Your task to perform on an android device: Empty the shopping cart on amazon. Add macbook pro 15 inch to the cart on amazon, then select checkout. Image 0: 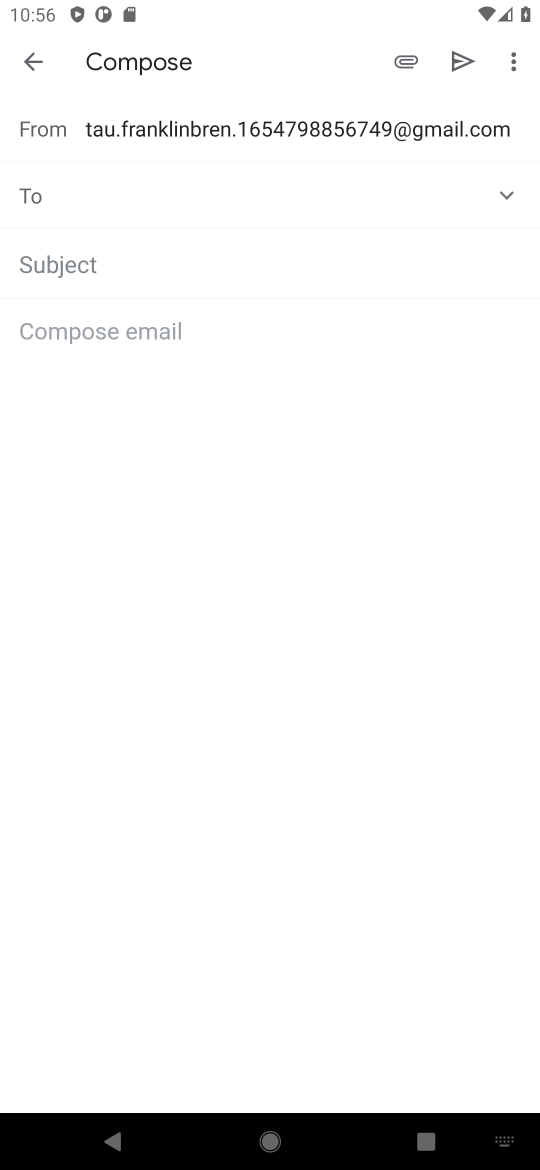
Step 0: press home button
Your task to perform on an android device: Empty the shopping cart on amazon. Add macbook pro 15 inch to the cart on amazon, then select checkout. Image 1: 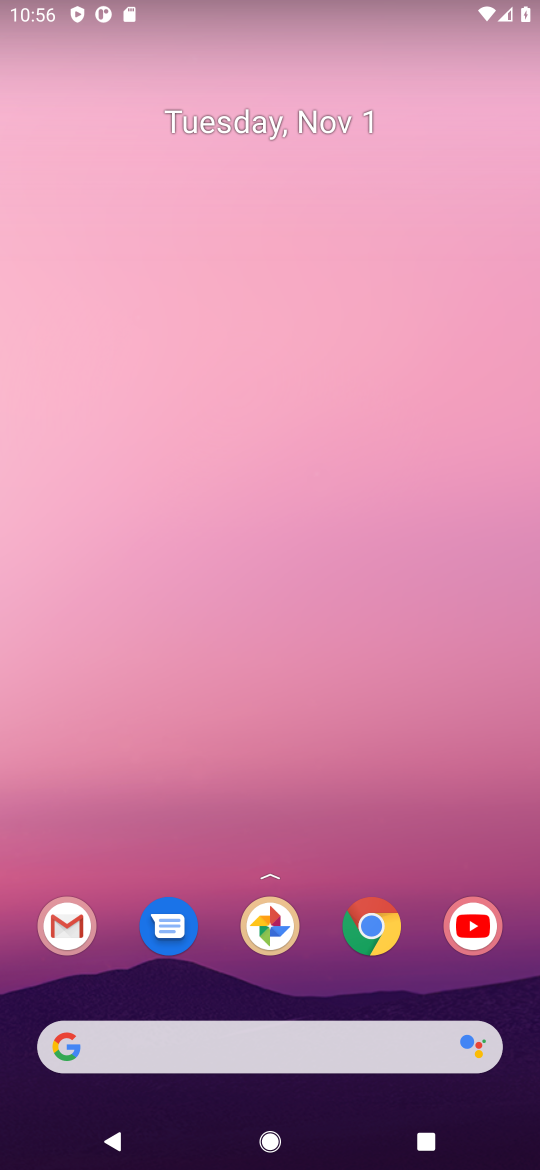
Step 1: click (390, 934)
Your task to perform on an android device: Empty the shopping cart on amazon. Add macbook pro 15 inch to the cart on amazon, then select checkout. Image 2: 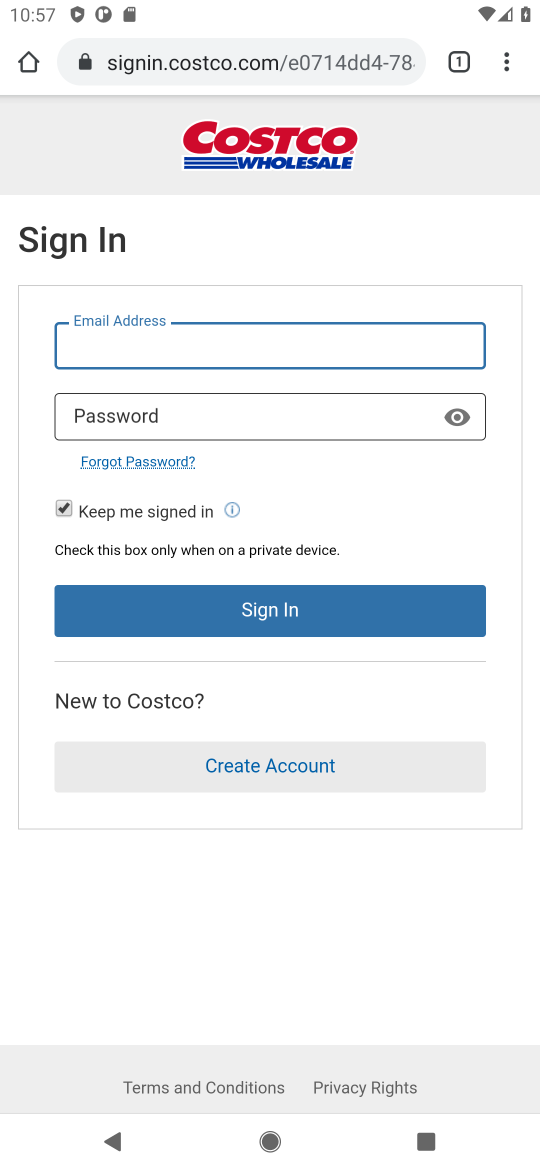
Step 2: press back button
Your task to perform on an android device: Empty the shopping cart on amazon. Add macbook pro 15 inch to the cart on amazon, then select checkout. Image 3: 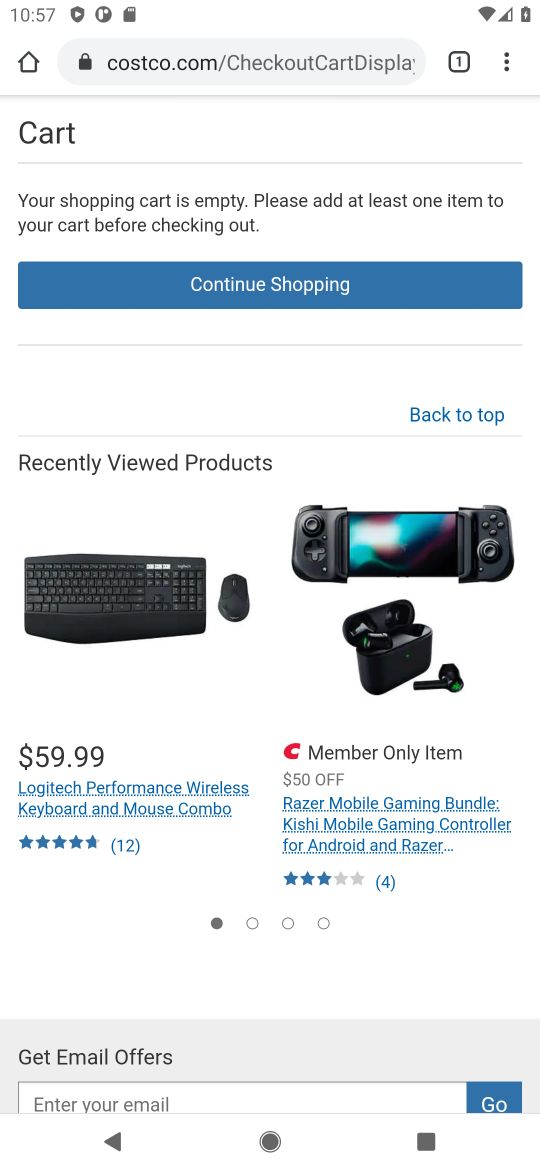
Step 3: click (251, 290)
Your task to perform on an android device: Empty the shopping cart on amazon. Add macbook pro 15 inch to the cart on amazon, then select checkout. Image 4: 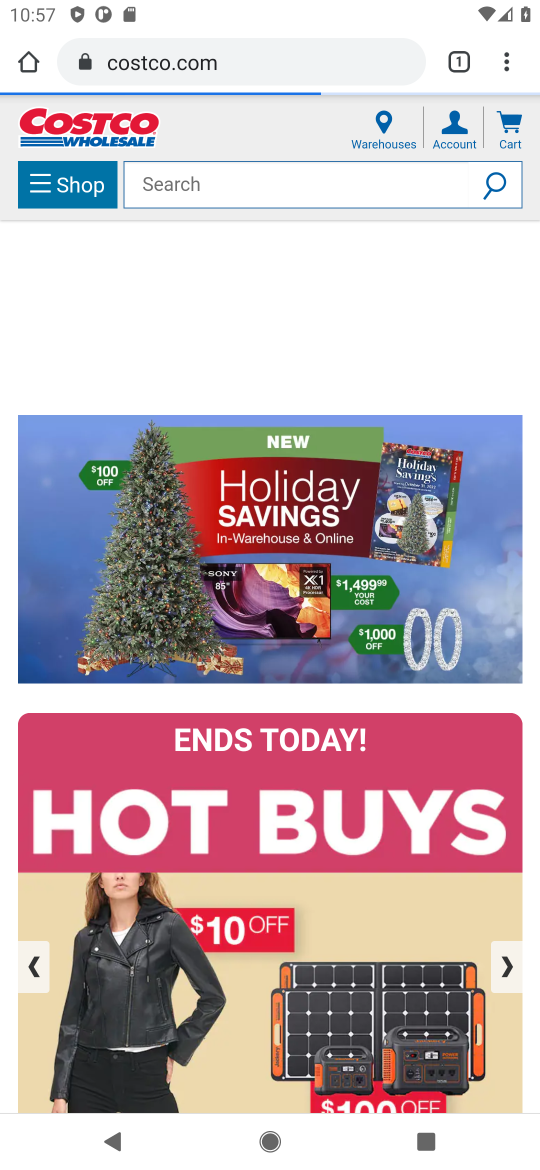
Step 4: click (233, 189)
Your task to perform on an android device: Empty the shopping cart on amazon. Add macbook pro 15 inch to the cart on amazon, then select checkout. Image 5: 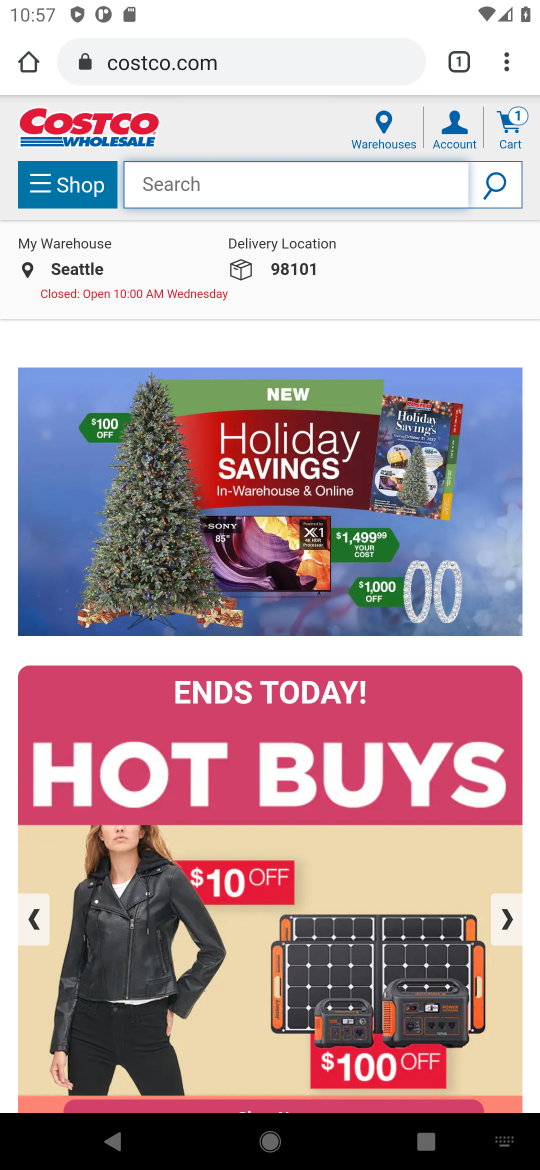
Step 5: type "macbook pro 15"
Your task to perform on an android device: Empty the shopping cart on amazon. Add macbook pro 15 inch to the cart on amazon, then select checkout. Image 6: 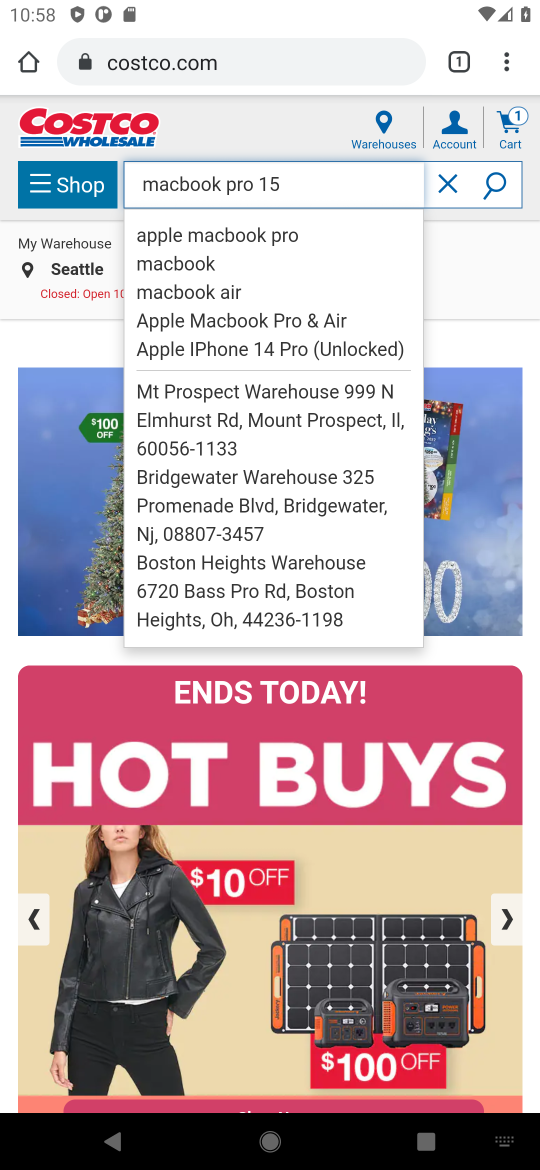
Step 6: click (179, 315)
Your task to perform on an android device: Empty the shopping cart on amazon. Add macbook pro 15 inch to the cart on amazon, then select checkout. Image 7: 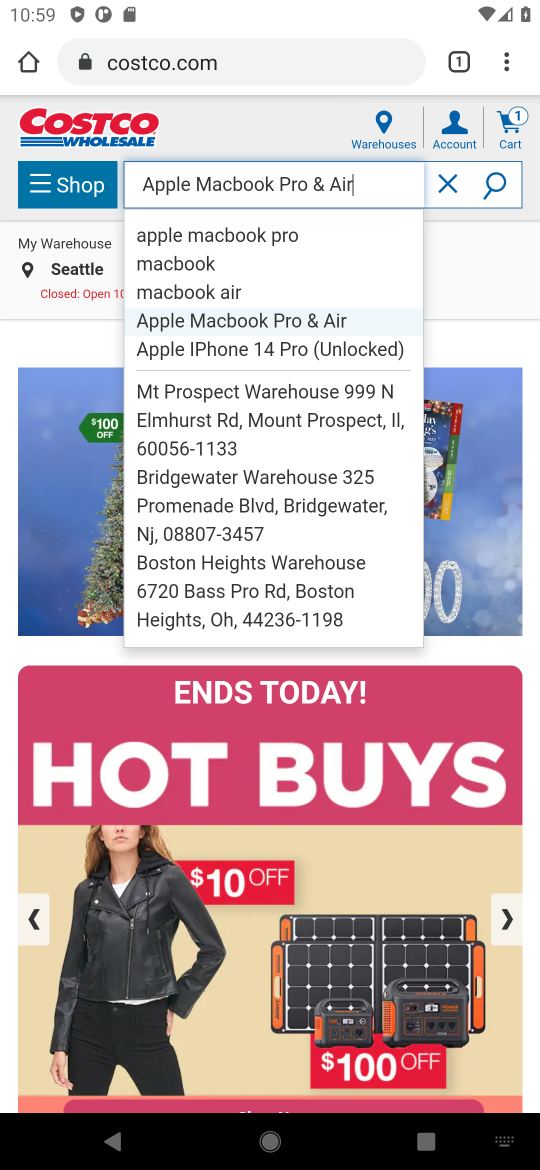
Step 7: click (179, 315)
Your task to perform on an android device: Empty the shopping cart on amazon. Add macbook pro 15 inch to the cart on amazon, then select checkout. Image 8: 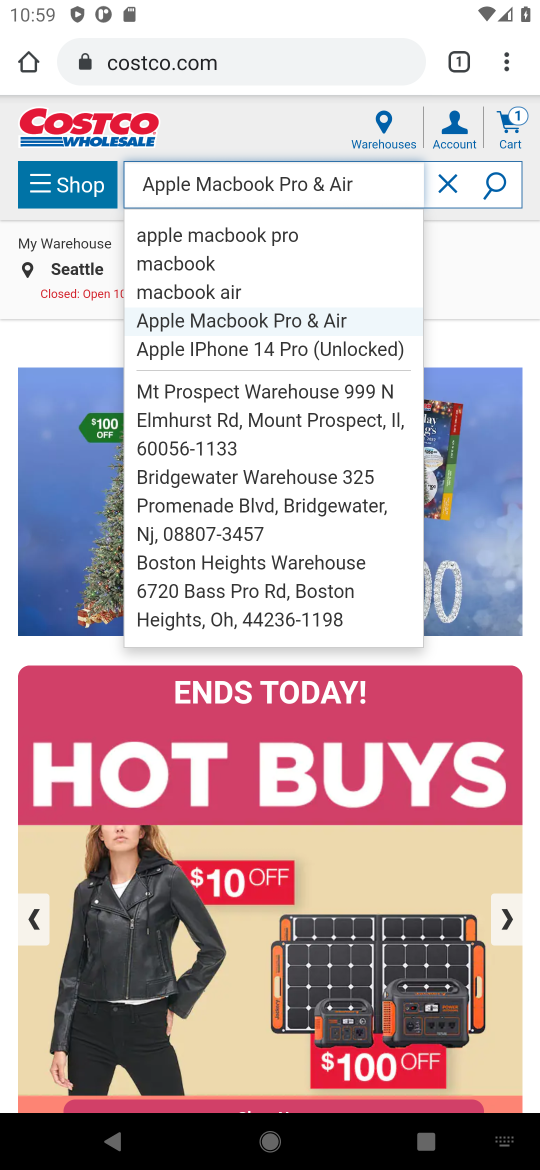
Step 8: click (205, 351)
Your task to perform on an android device: Empty the shopping cart on amazon. Add macbook pro 15 inch to the cart on amazon, then select checkout. Image 9: 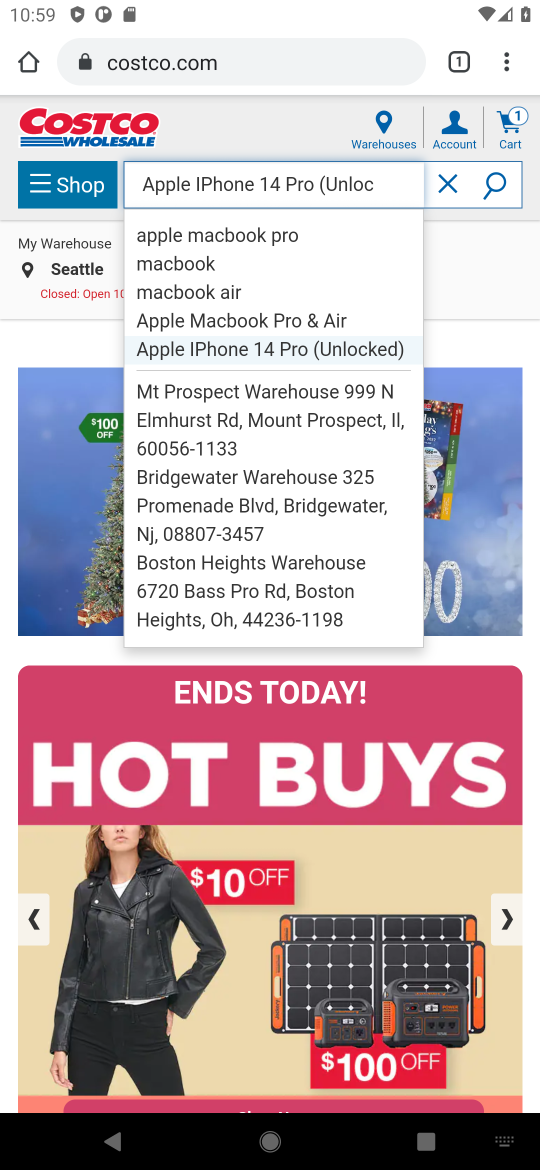
Step 9: click (494, 189)
Your task to perform on an android device: Empty the shopping cart on amazon. Add macbook pro 15 inch to the cart on amazon, then select checkout. Image 10: 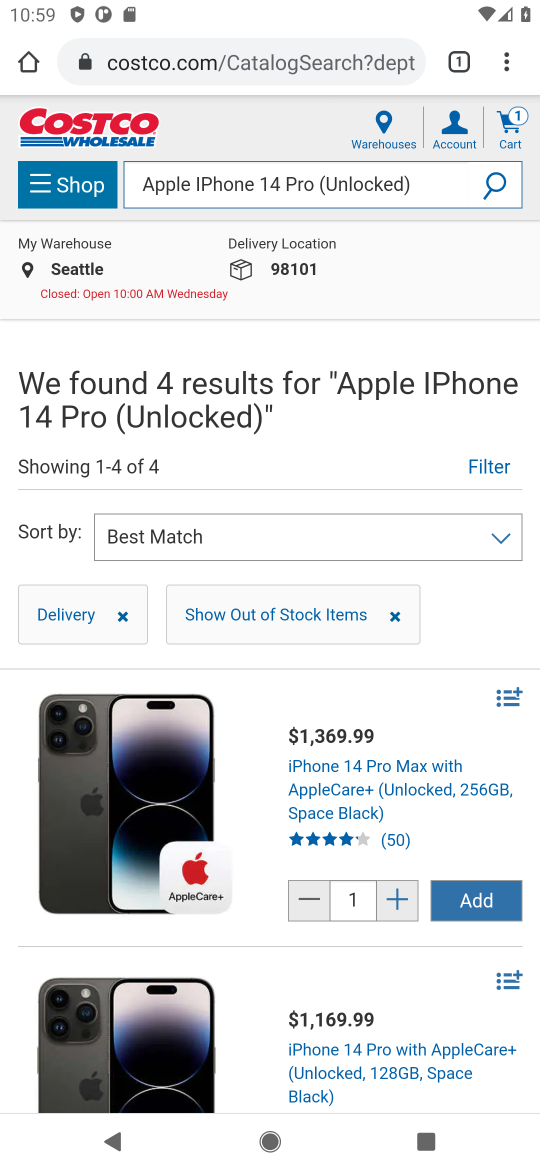
Step 10: drag from (205, 1006) to (301, 241)
Your task to perform on an android device: Empty the shopping cart on amazon. Add macbook pro 15 inch to the cart on amazon, then select checkout. Image 11: 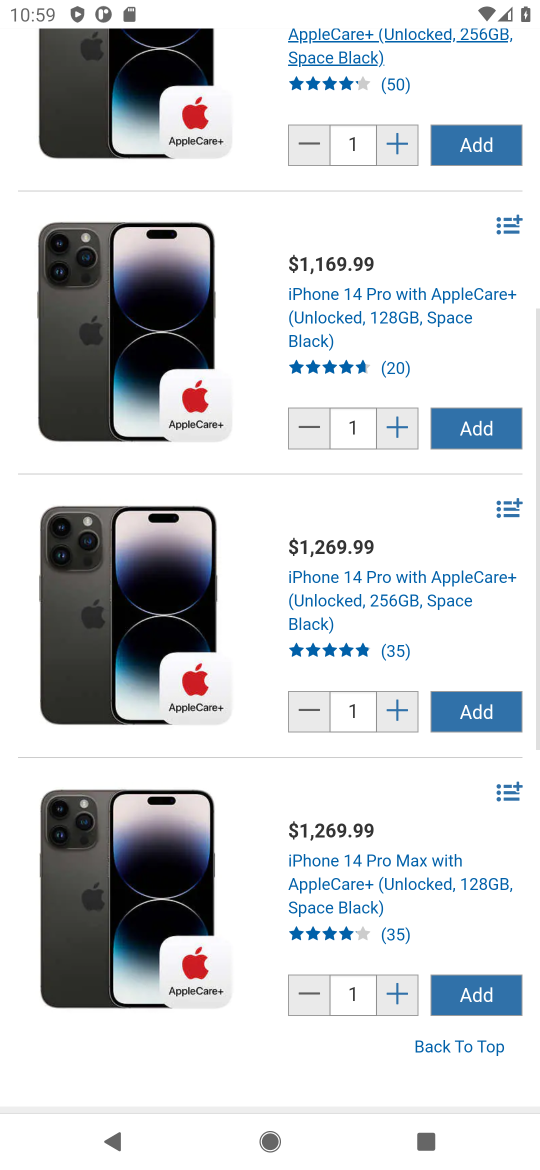
Step 11: drag from (204, 824) to (247, 333)
Your task to perform on an android device: Empty the shopping cart on amazon. Add macbook pro 15 inch to the cart on amazon, then select checkout. Image 12: 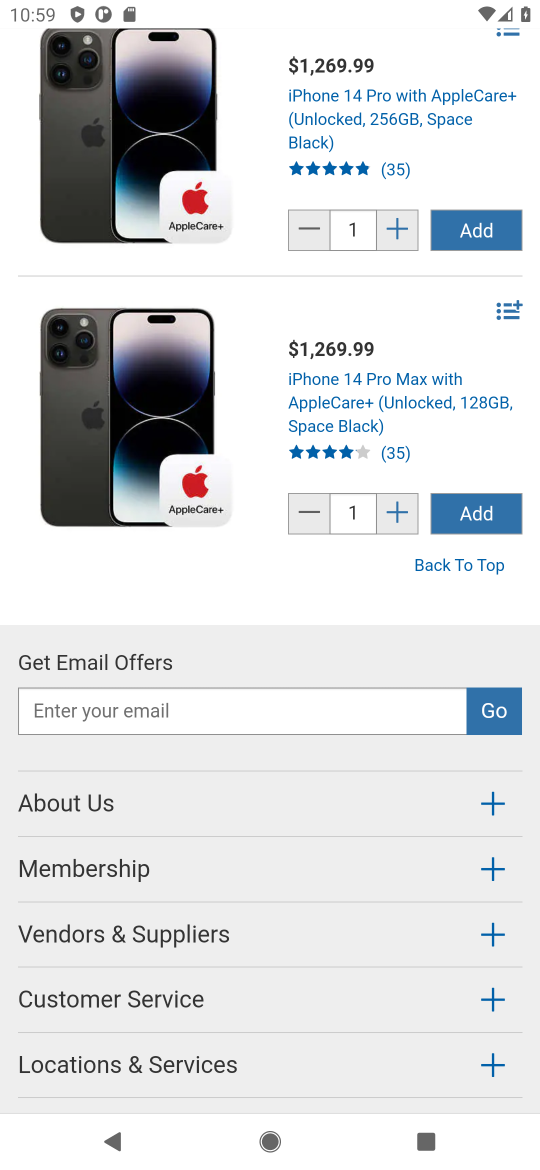
Step 12: drag from (120, 349) to (110, 946)
Your task to perform on an android device: Empty the shopping cart on amazon. Add macbook pro 15 inch to the cart on amazon, then select checkout. Image 13: 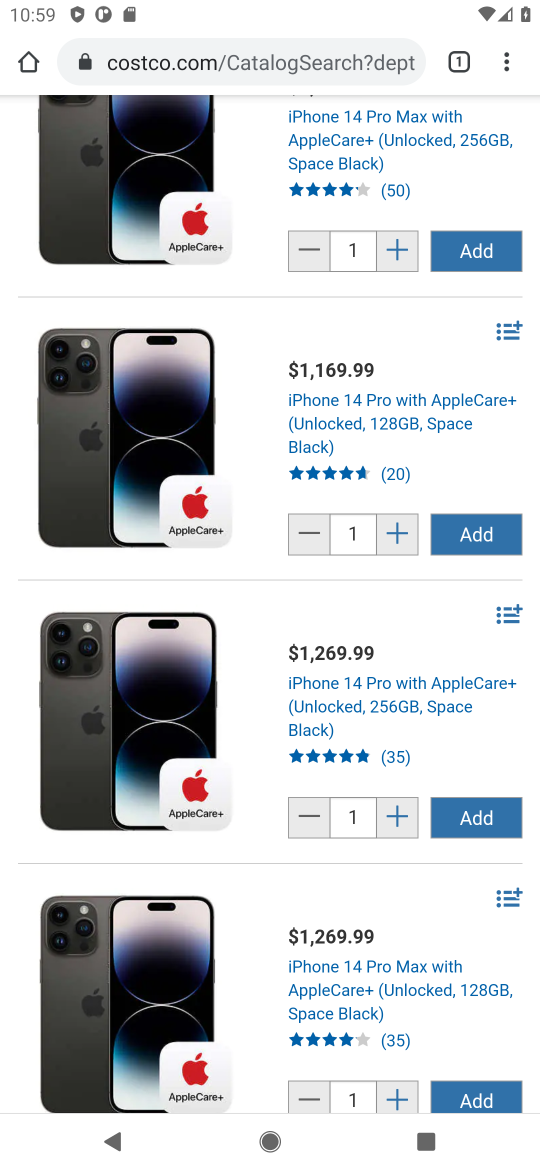
Step 13: click (70, 638)
Your task to perform on an android device: Empty the shopping cart on amazon. Add macbook pro 15 inch to the cart on amazon, then select checkout. Image 14: 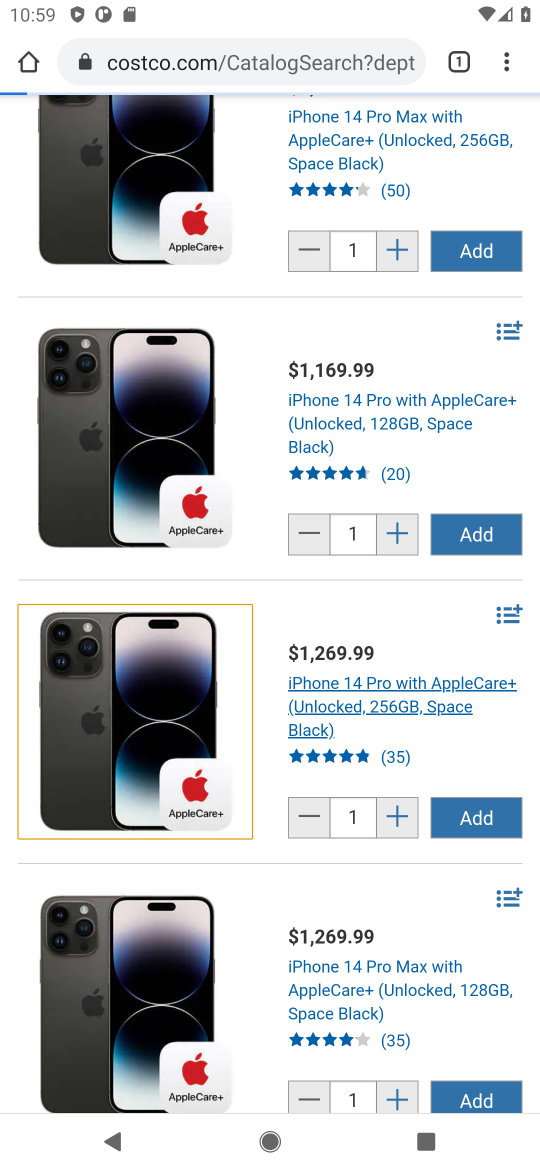
Step 14: click (491, 824)
Your task to perform on an android device: Empty the shopping cart on amazon. Add macbook pro 15 inch to the cart on amazon, then select checkout. Image 15: 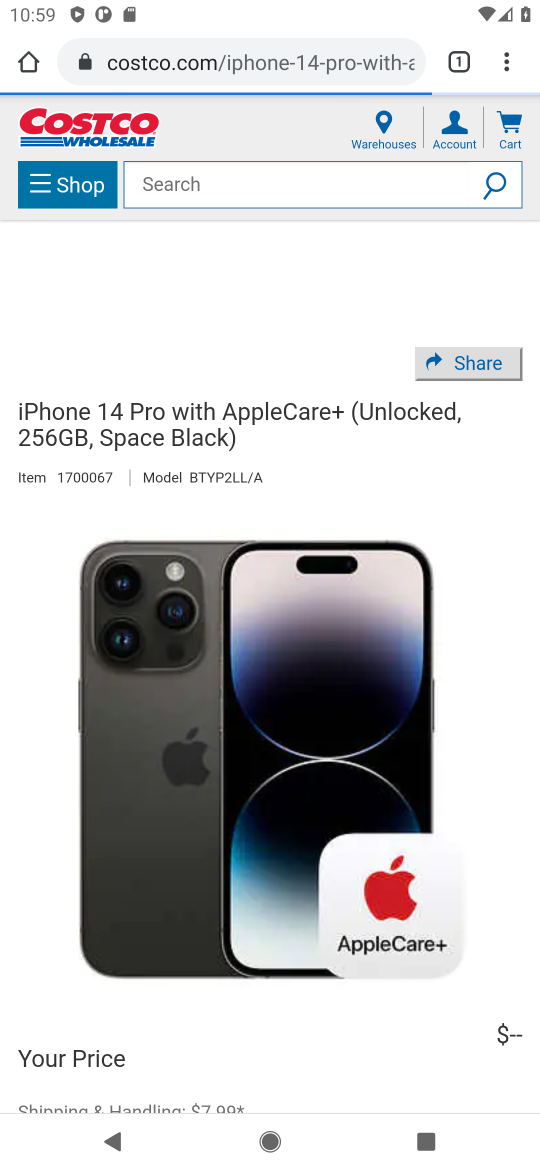
Step 15: drag from (251, 992) to (250, 184)
Your task to perform on an android device: Empty the shopping cart on amazon. Add macbook pro 15 inch to the cart on amazon, then select checkout. Image 16: 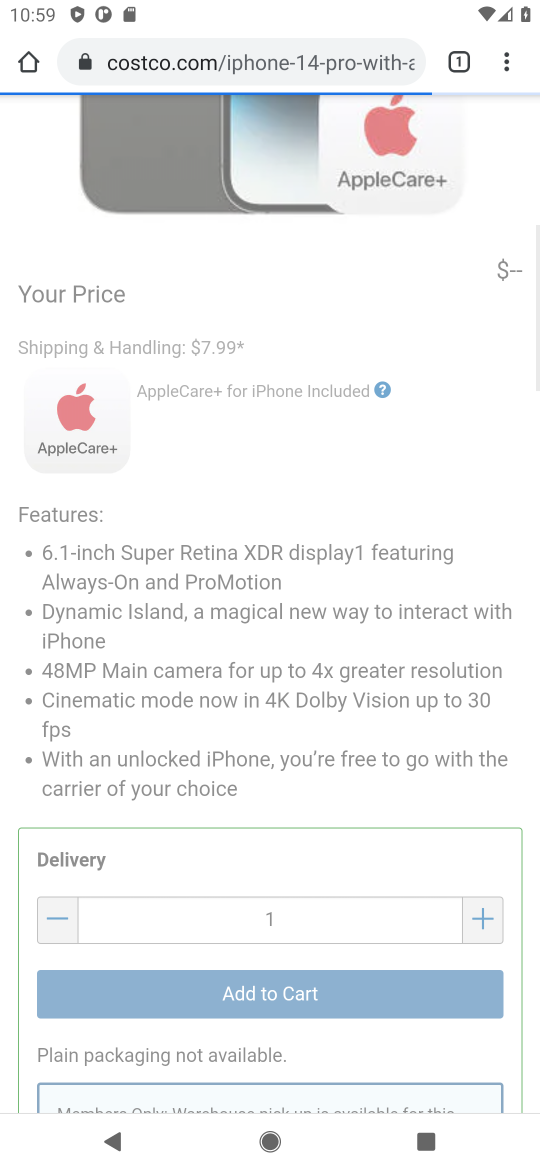
Step 16: drag from (236, 1007) to (261, 407)
Your task to perform on an android device: Empty the shopping cart on amazon. Add macbook pro 15 inch to the cart on amazon, then select checkout. Image 17: 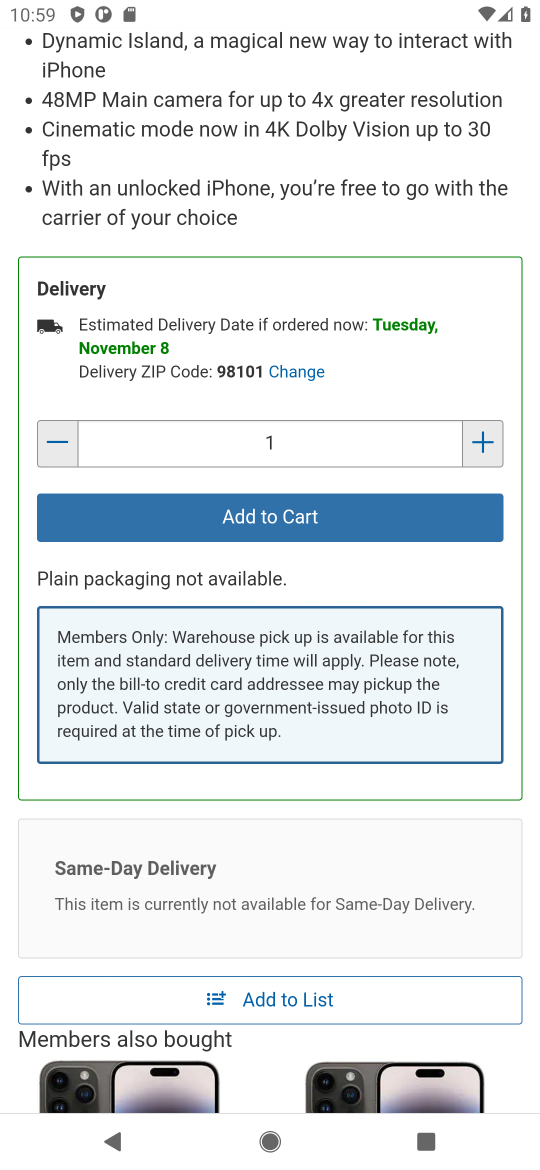
Step 17: click (226, 506)
Your task to perform on an android device: Empty the shopping cart on amazon. Add macbook pro 15 inch to the cart on amazon, then select checkout. Image 18: 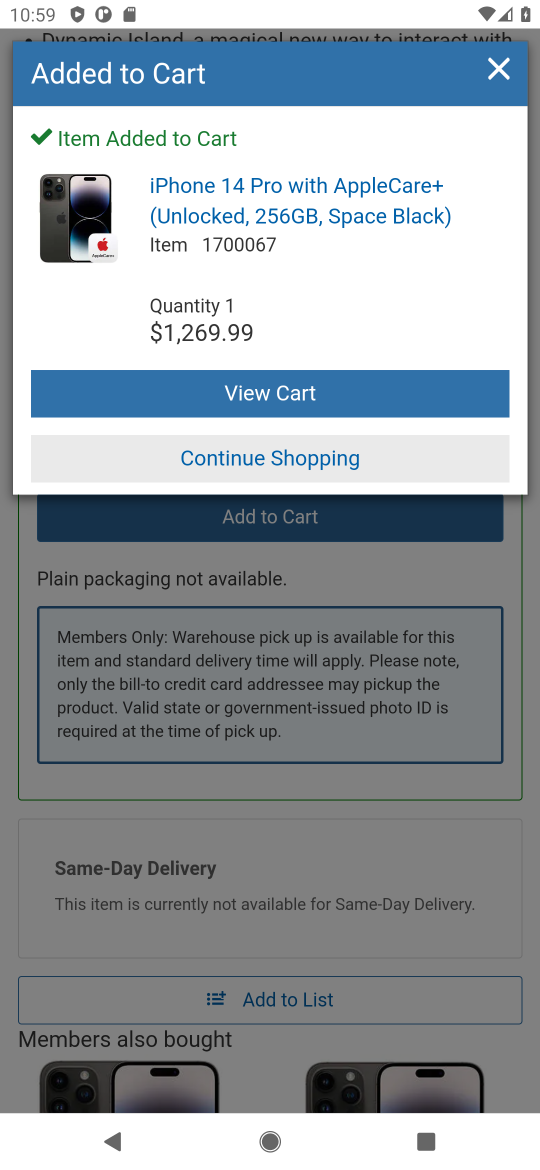
Step 18: click (225, 394)
Your task to perform on an android device: Empty the shopping cart on amazon. Add macbook pro 15 inch to the cart on amazon, then select checkout. Image 19: 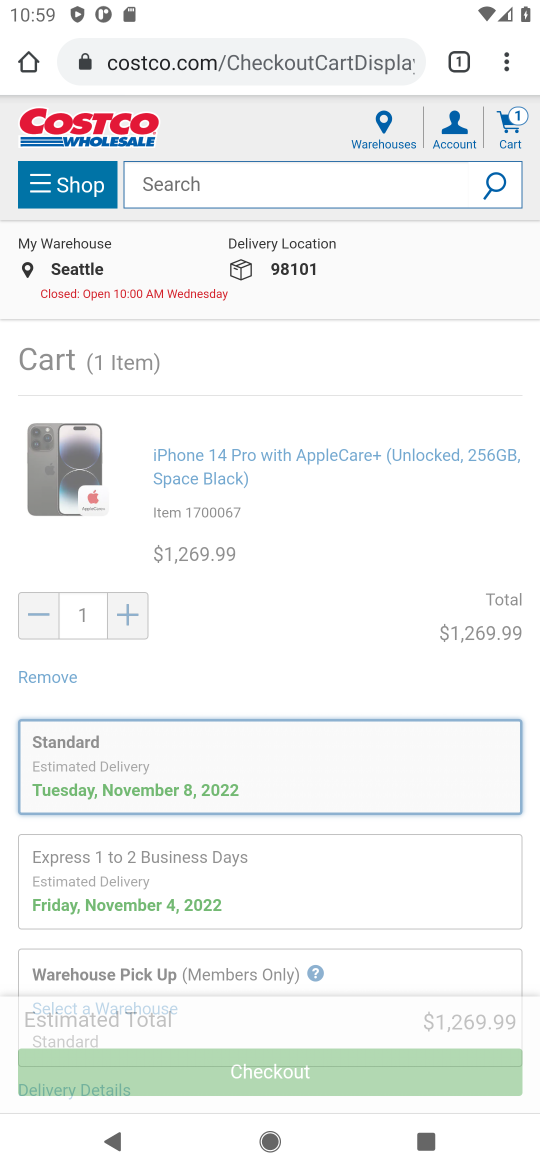
Step 19: click (266, 1065)
Your task to perform on an android device: Empty the shopping cart on amazon. Add macbook pro 15 inch to the cart on amazon, then select checkout. Image 20: 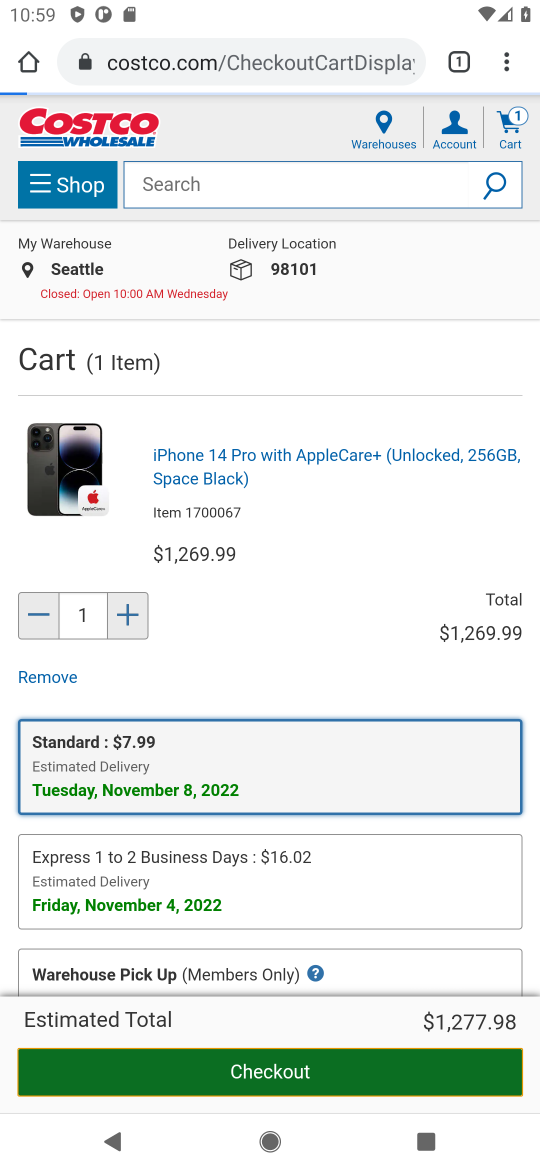
Step 20: click (266, 1065)
Your task to perform on an android device: Empty the shopping cart on amazon. Add macbook pro 15 inch to the cart on amazon, then select checkout. Image 21: 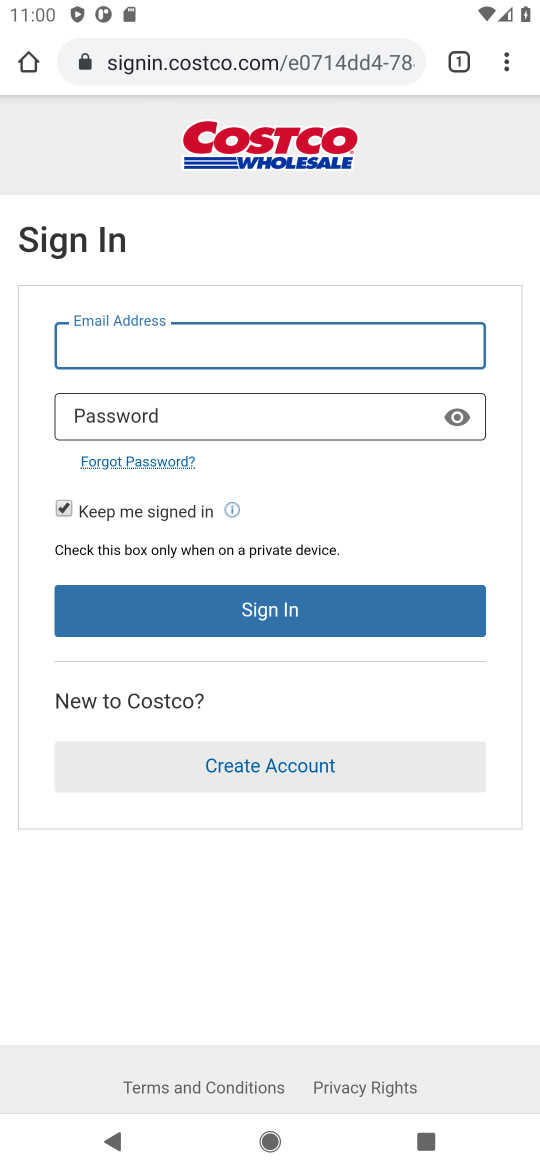
Step 21: press home button
Your task to perform on an android device: Empty the shopping cart on amazon. Add macbook pro 15 inch to the cart on amazon, then select checkout. Image 22: 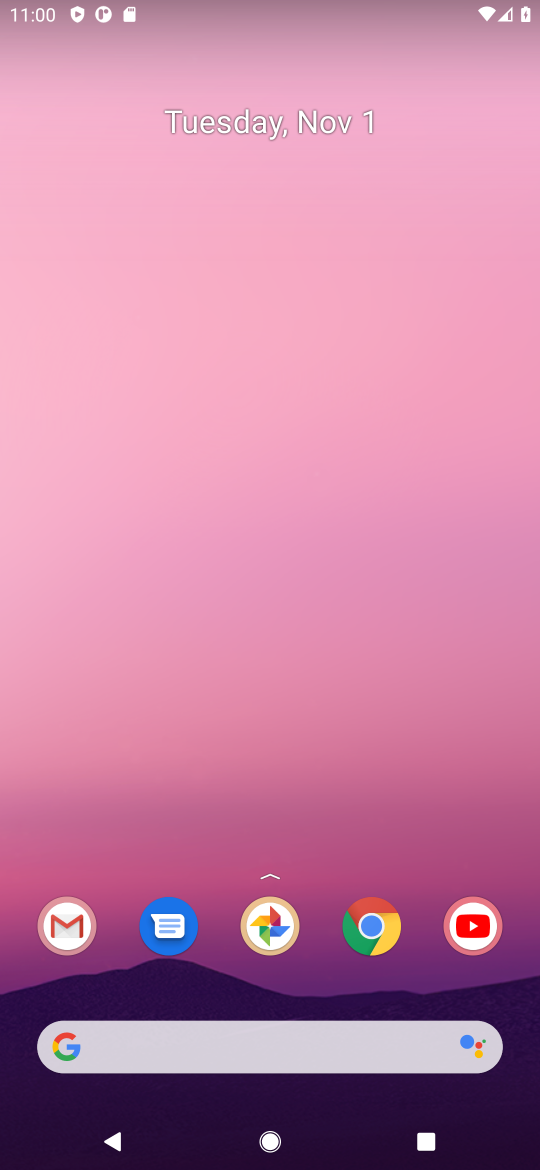
Step 22: click (397, 910)
Your task to perform on an android device: Empty the shopping cart on amazon. Add macbook pro 15 inch to the cart on amazon, then select checkout. Image 23: 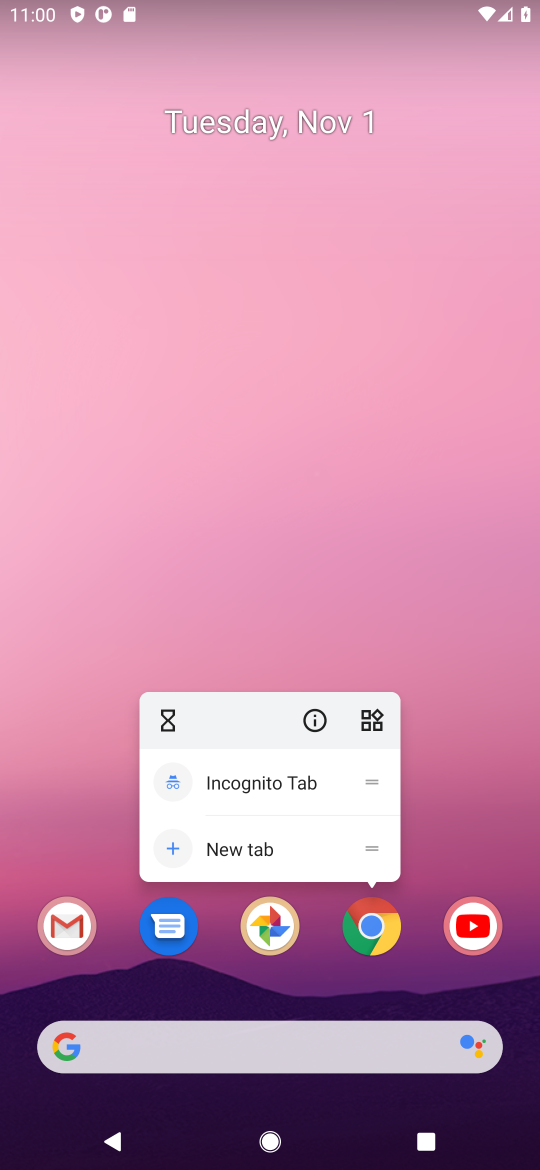
Step 23: click (362, 935)
Your task to perform on an android device: Empty the shopping cart on amazon. Add macbook pro 15 inch to the cart on amazon, then select checkout. Image 24: 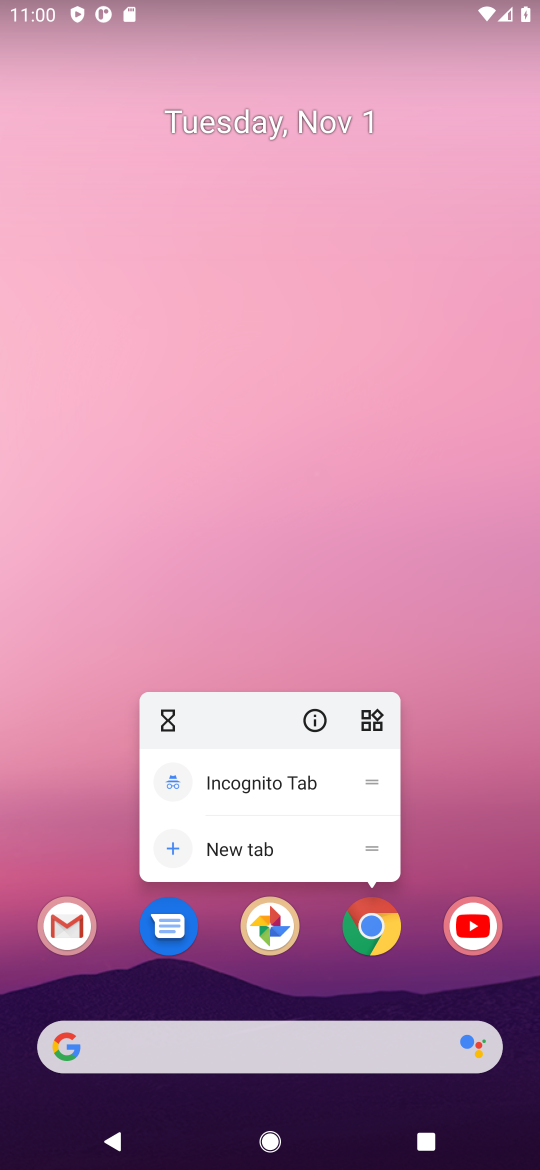
Step 24: click (373, 931)
Your task to perform on an android device: Empty the shopping cart on amazon. Add macbook pro 15 inch to the cart on amazon, then select checkout. Image 25: 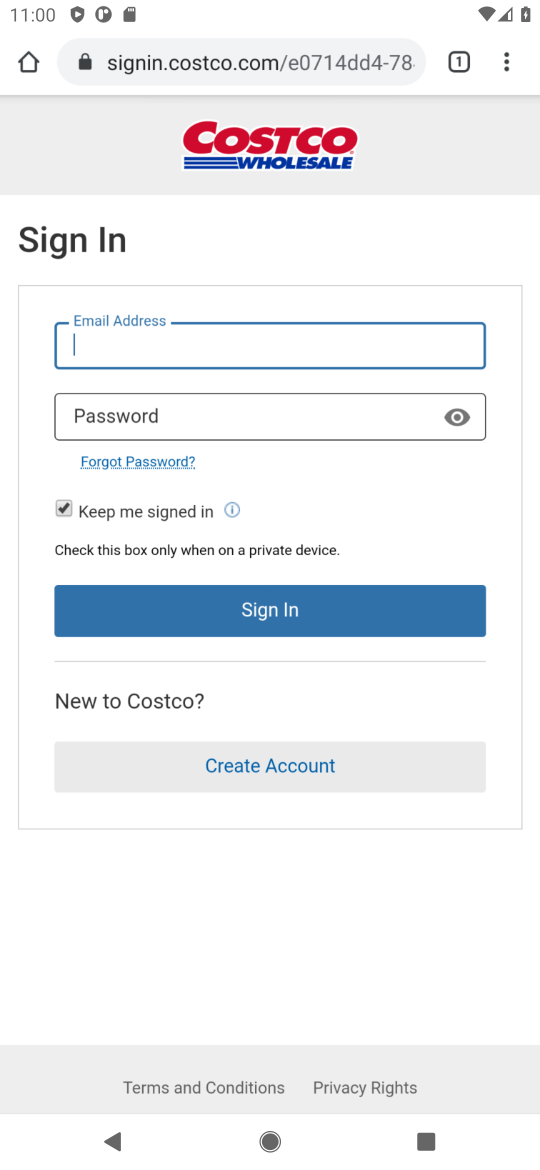
Step 25: click (375, 931)
Your task to perform on an android device: Empty the shopping cart on amazon. Add macbook pro 15 inch to the cart on amazon, then select checkout. Image 26: 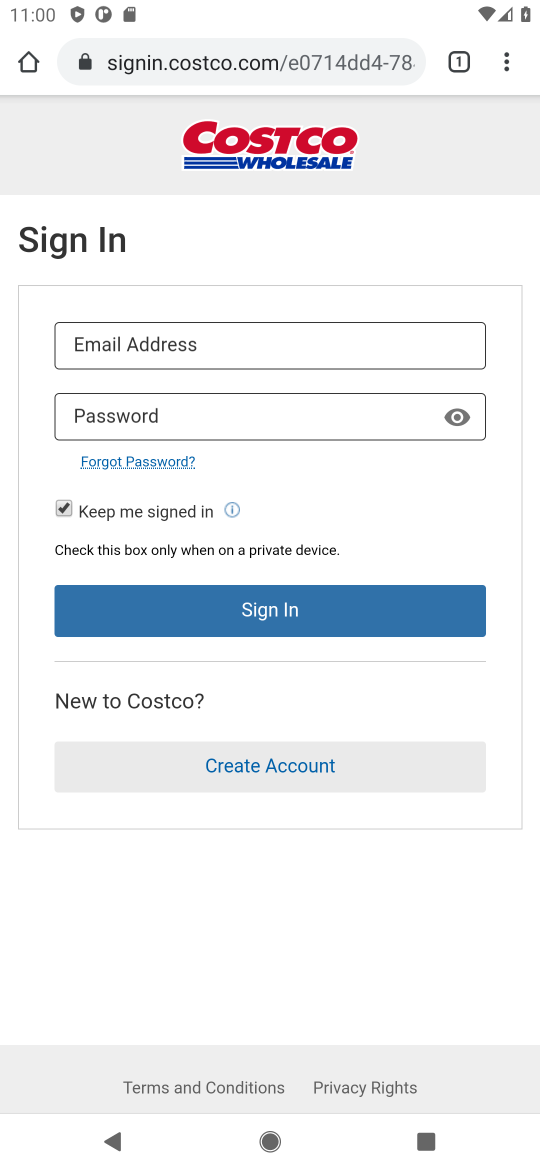
Step 26: click (204, 51)
Your task to perform on an android device: Empty the shopping cart on amazon. Add macbook pro 15 inch to the cart on amazon, then select checkout. Image 27: 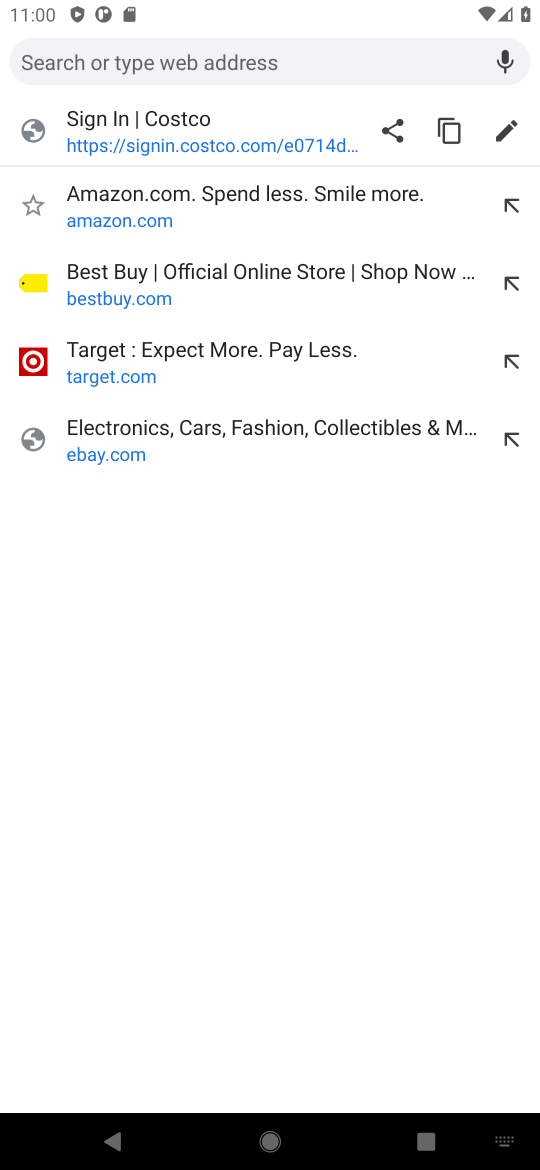
Step 27: type "amazon"
Your task to perform on an android device: Empty the shopping cart on amazon. Add macbook pro 15 inch to the cart on amazon, then select checkout. Image 28: 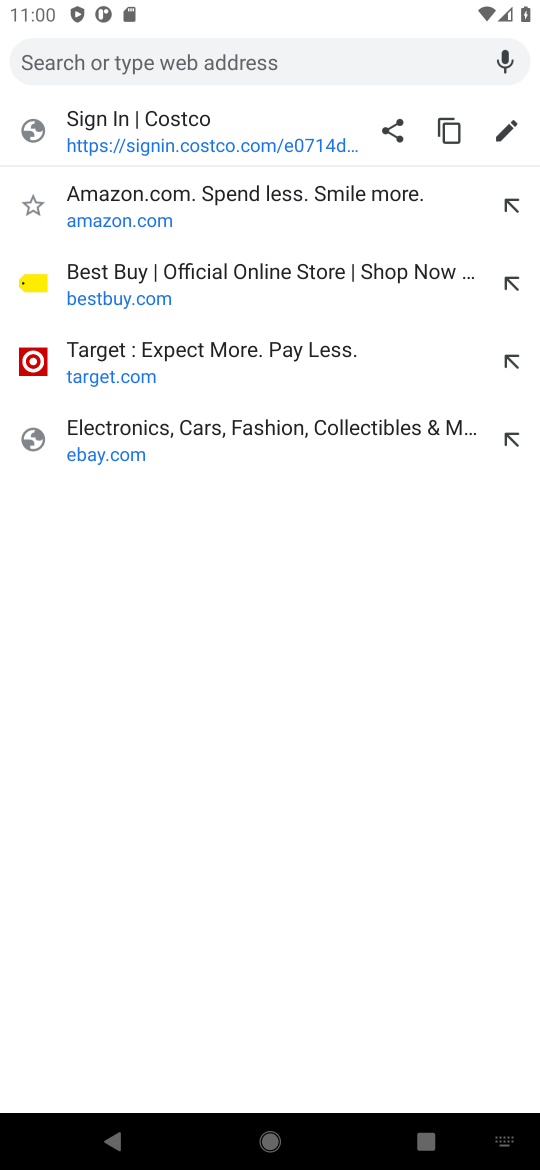
Step 28: click (176, 211)
Your task to perform on an android device: Empty the shopping cart on amazon. Add macbook pro 15 inch to the cart on amazon, then select checkout. Image 29: 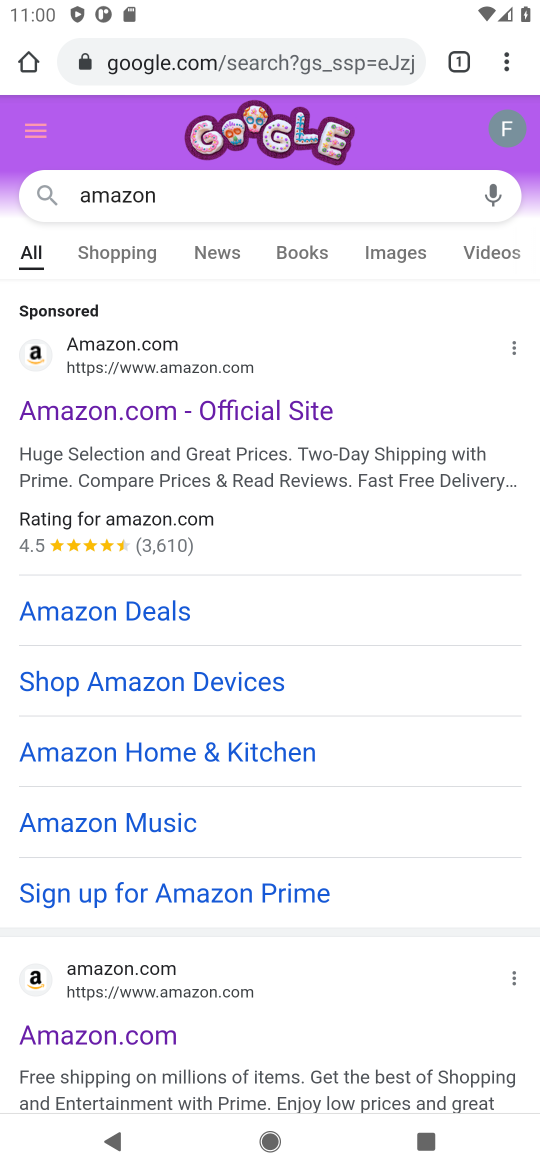
Step 29: click (113, 1044)
Your task to perform on an android device: Empty the shopping cart on amazon. Add macbook pro 15 inch to the cart on amazon, then select checkout. Image 30: 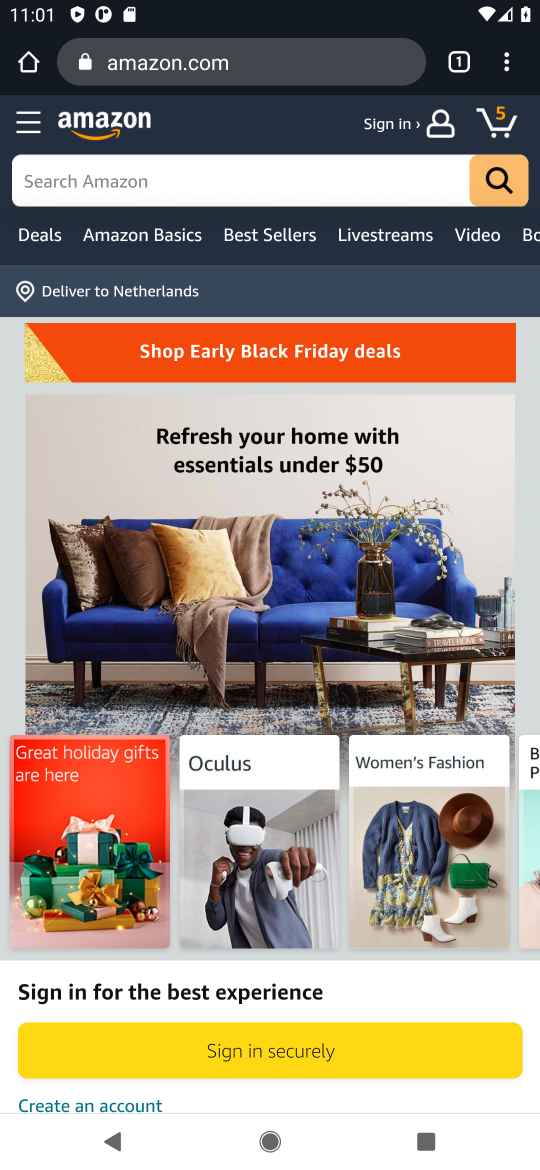
Step 30: drag from (110, 308) to (231, 326)
Your task to perform on an android device: Empty the shopping cart on amazon. Add macbook pro 15 inch to the cart on amazon, then select checkout. Image 31: 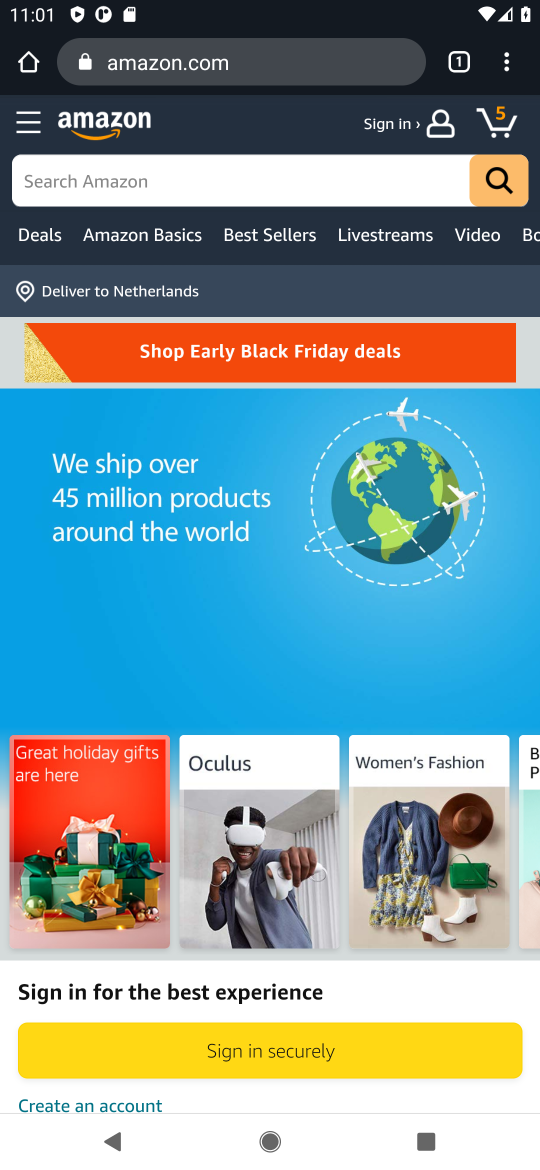
Step 31: click (99, 178)
Your task to perform on an android device: Empty the shopping cart on amazon. Add macbook pro 15 inch to the cart on amazon, then select checkout. Image 32: 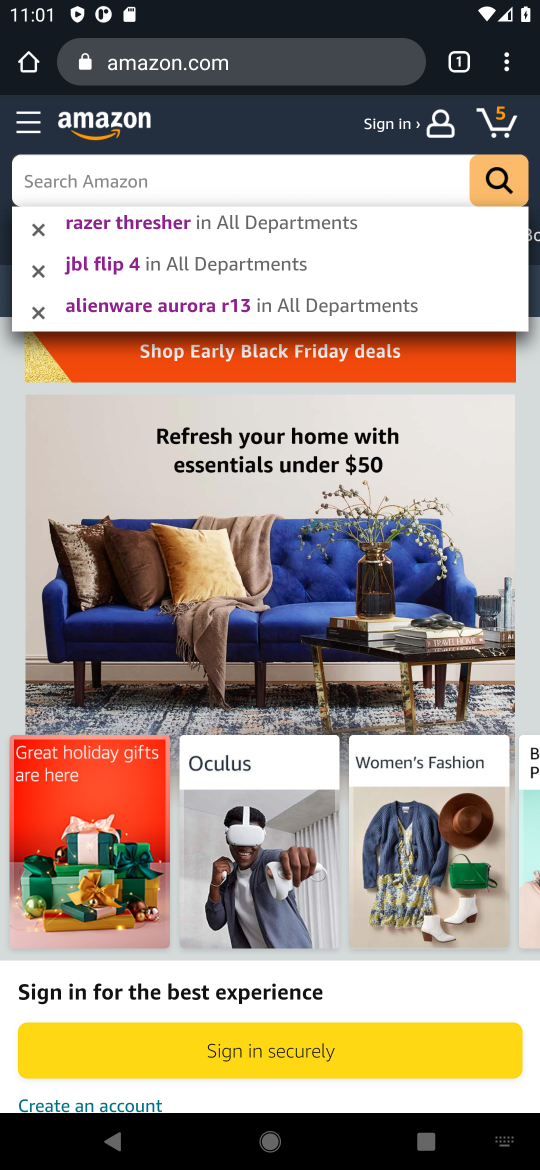
Step 32: type "macbook pro 15"
Your task to perform on an android device: Empty the shopping cart on amazon. Add macbook pro 15 inch to the cart on amazon, then select checkout. Image 33: 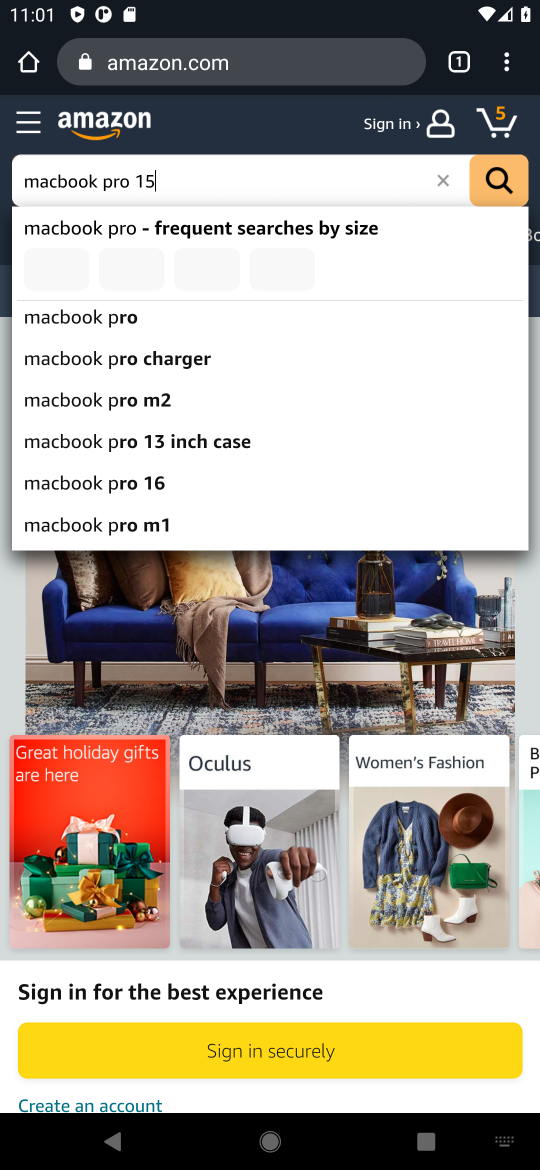
Step 33: type ""
Your task to perform on an android device: Empty the shopping cart on amazon. Add macbook pro 15 inch to the cart on amazon, then select checkout. Image 34: 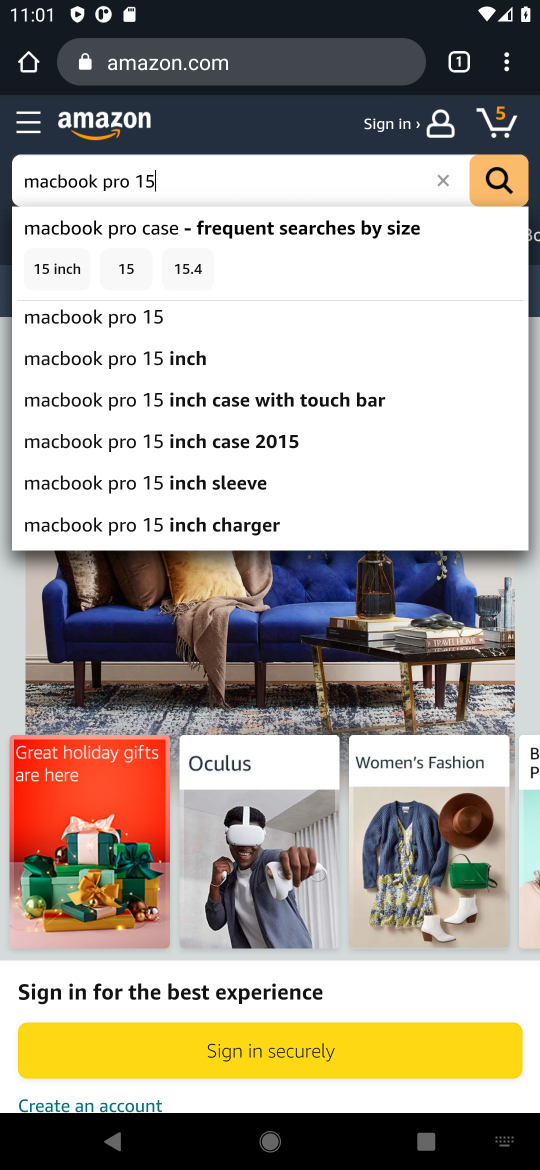
Step 34: click (59, 356)
Your task to perform on an android device: Empty the shopping cart on amazon. Add macbook pro 15 inch to the cart on amazon, then select checkout. Image 35: 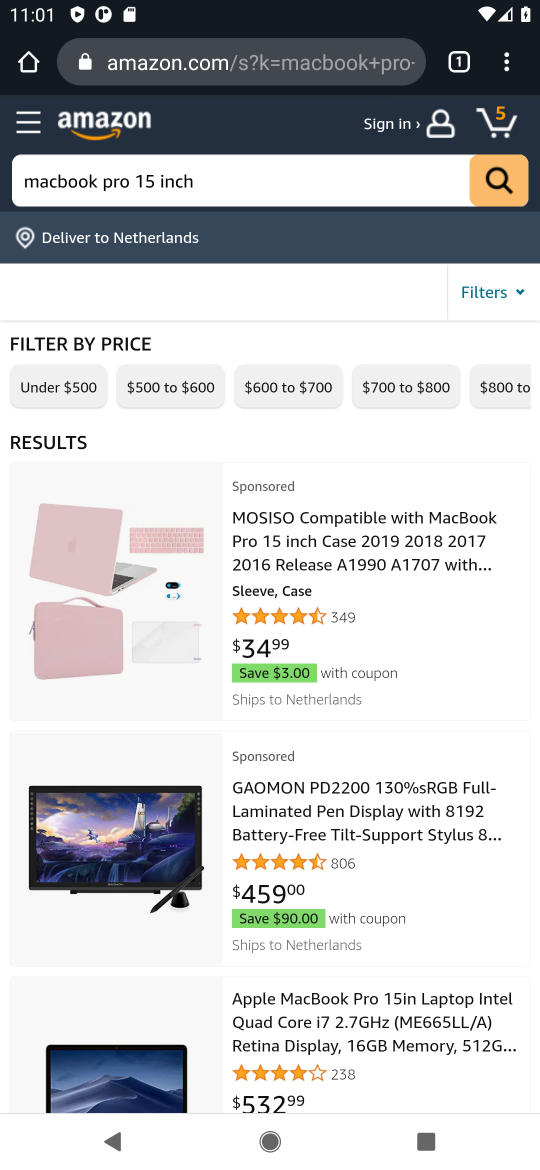
Step 35: drag from (213, 992) to (159, 636)
Your task to perform on an android device: Empty the shopping cart on amazon. Add macbook pro 15 inch to the cart on amazon, then select checkout. Image 36: 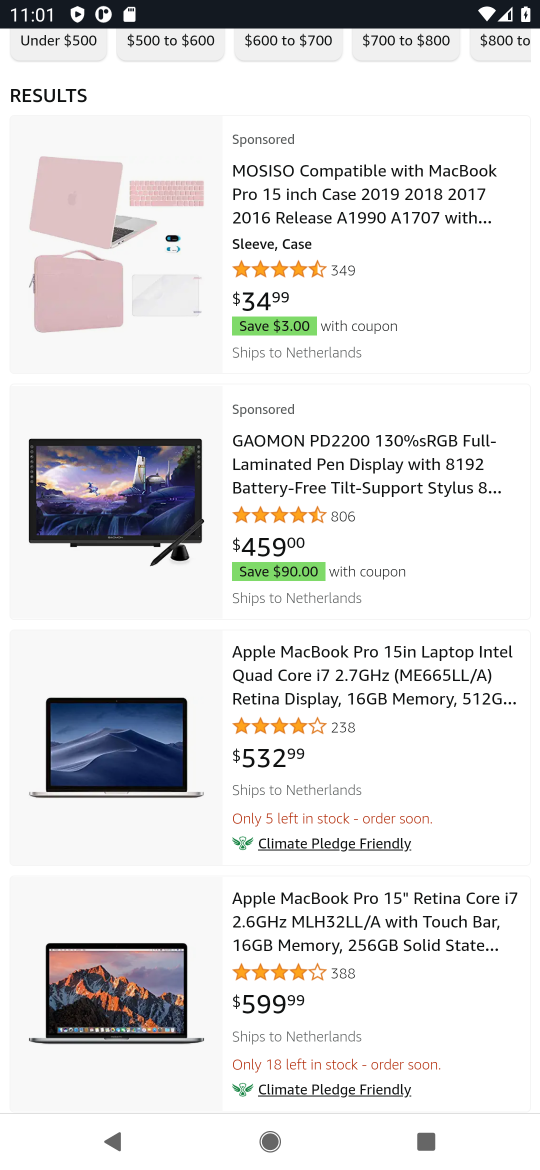
Step 36: click (281, 654)
Your task to perform on an android device: Empty the shopping cart on amazon. Add macbook pro 15 inch to the cart on amazon, then select checkout. Image 37: 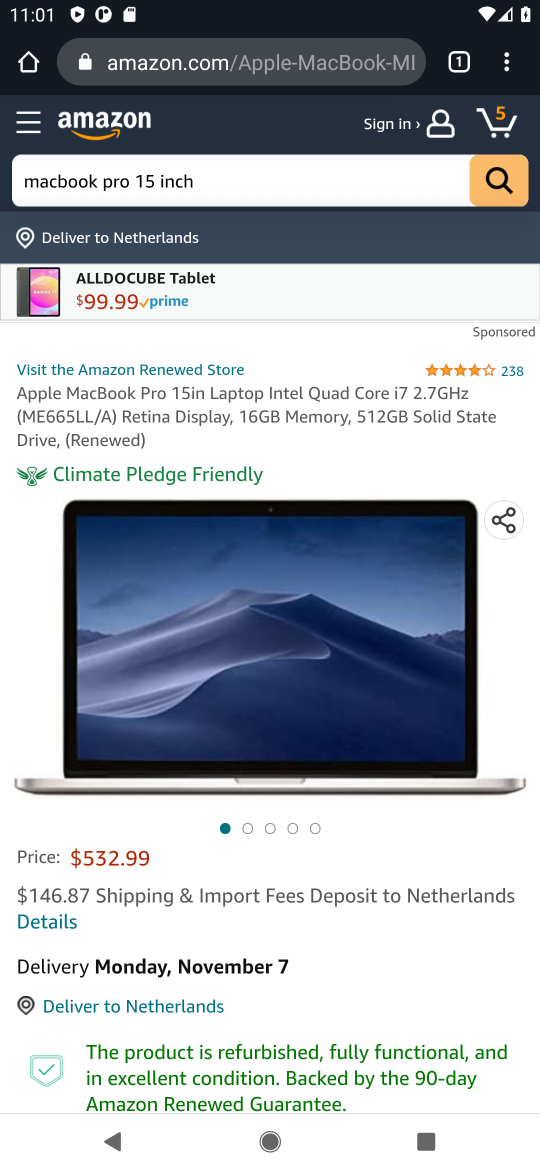
Step 37: drag from (158, 824) to (198, 298)
Your task to perform on an android device: Empty the shopping cart on amazon. Add macbook pro 15 inch to the cart on amazon, then select checkout. Image 38: 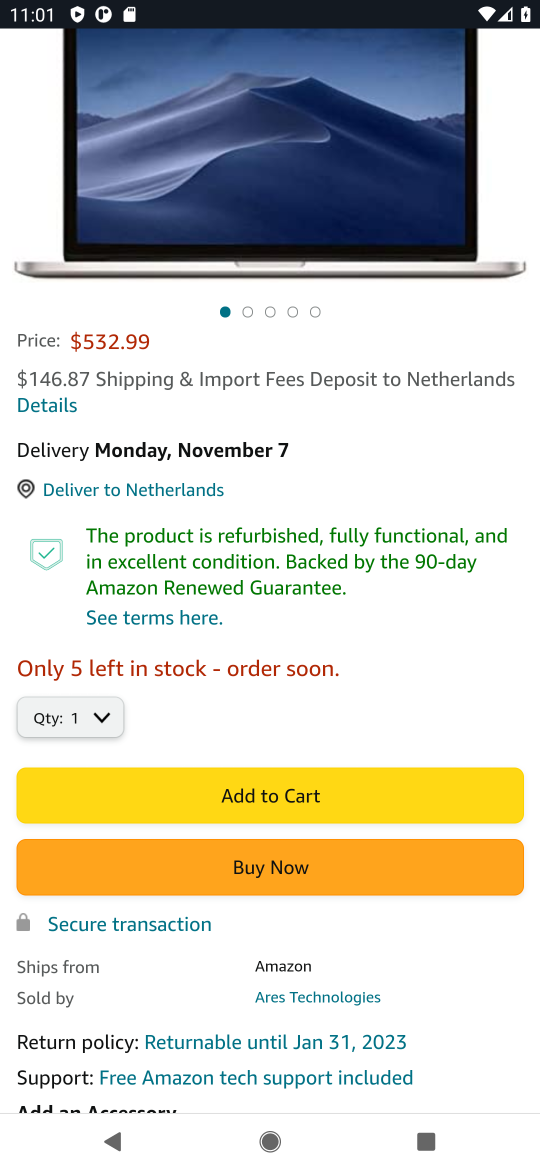
Step 38: click (238, 799)
Your task to perform on an android device: Empty the shopping cart on amazon. Add macbook pro 15 inch to the cart on amazon, then select checkout. Image 39: 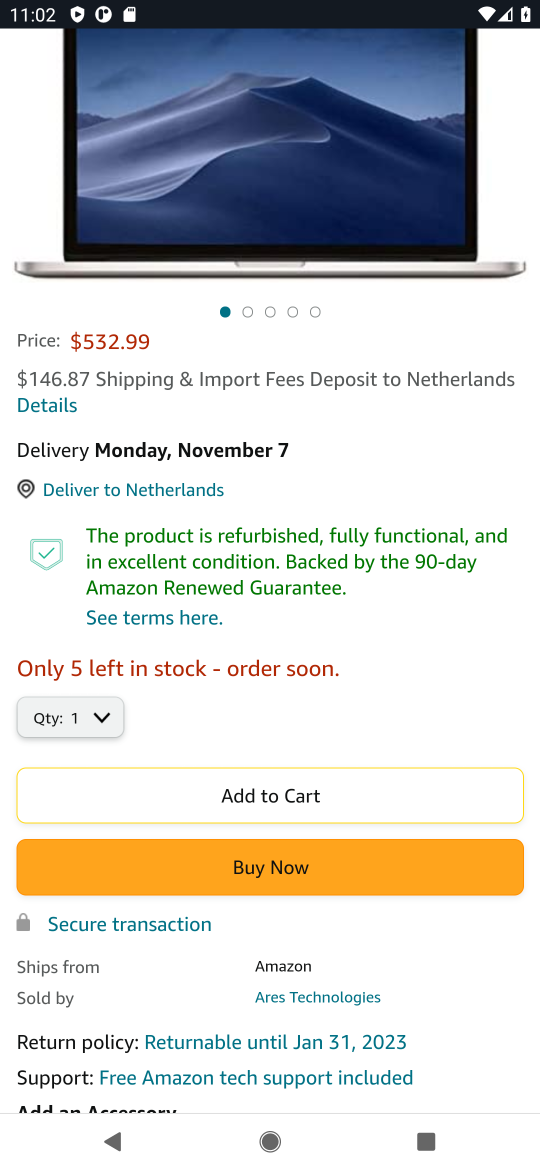
Step 39: click (245, 794)
Your task to perform on an android device: Empty the shopping cart on amazon. Add macbook pro 15 inch to the cart on amazon, then select checkout. Image 40: 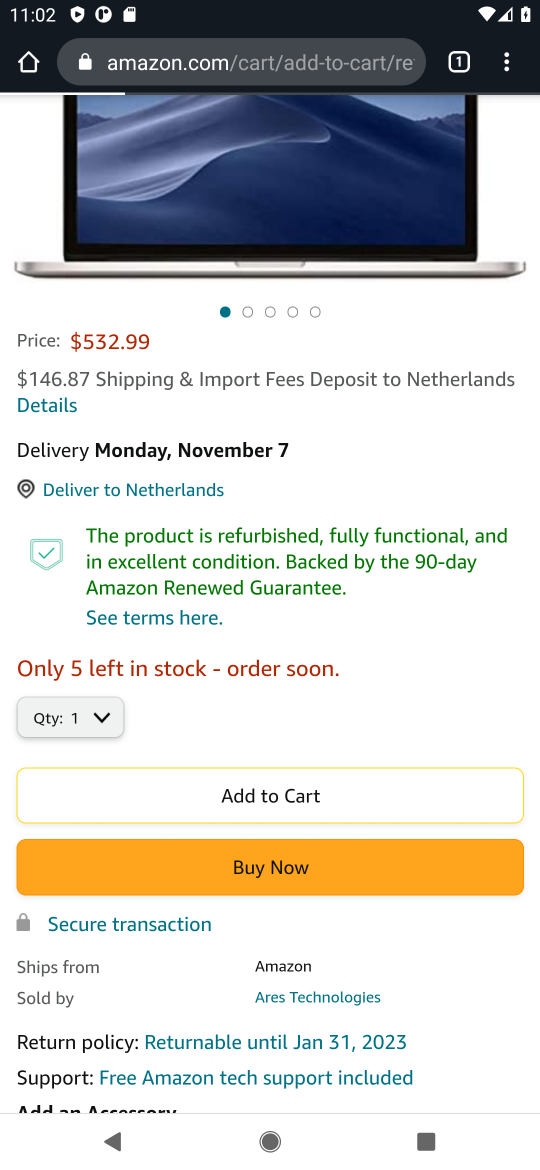
Step 40: drag from (221, 230) to (244, 784)
Your task to perform on an android device: Empty the shopping cart on amazon. Add macbook pro 15 inch to the cart on amazon, then select checkout. Image 41: 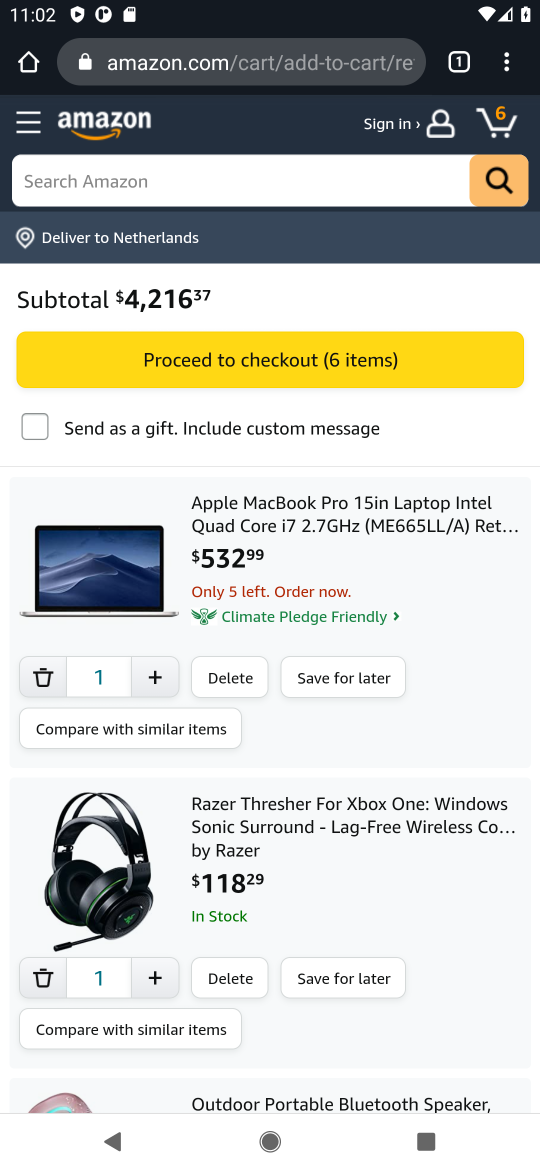
Step 41: click (218, 354)
Your task to perform on an android device: Empty the shopping cart on amazon. Add macbook pro 15 inch to the cart on amazon, then select checkout. Image 42: 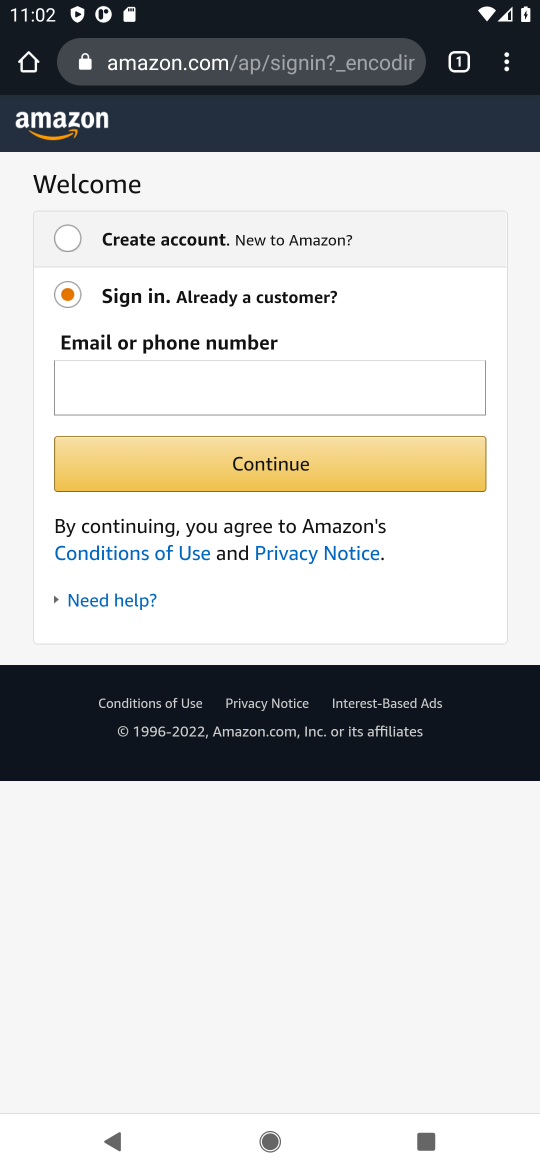
Step 42: task complete